Your task to perform on an android device: Search for pizza restaurants on Maps Image 0: 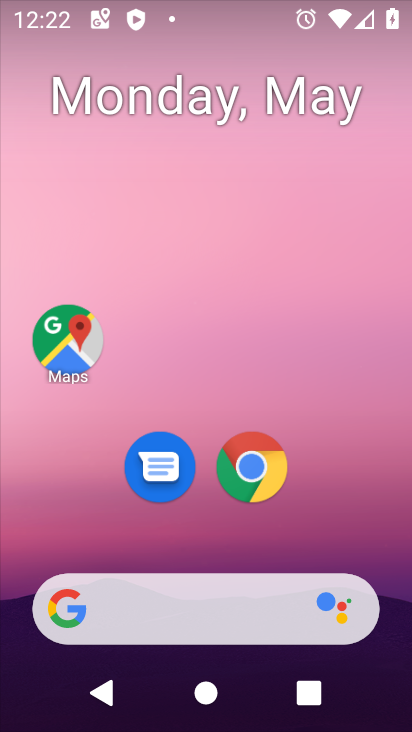
Step 0: drag from (382, 651) to (326, 40)
Your task to perform on an android device: Search for pizza restaurants on Maps Image 1: 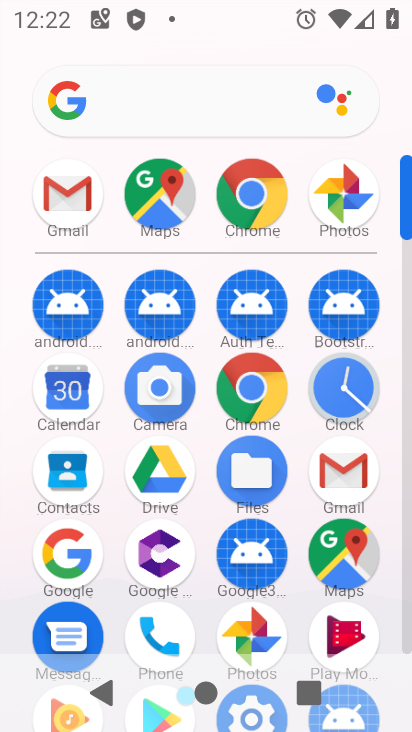
Step 1: click (350, 567)
Your task to perform on an android device: Search for pizza restaurants on Maps Image 2: 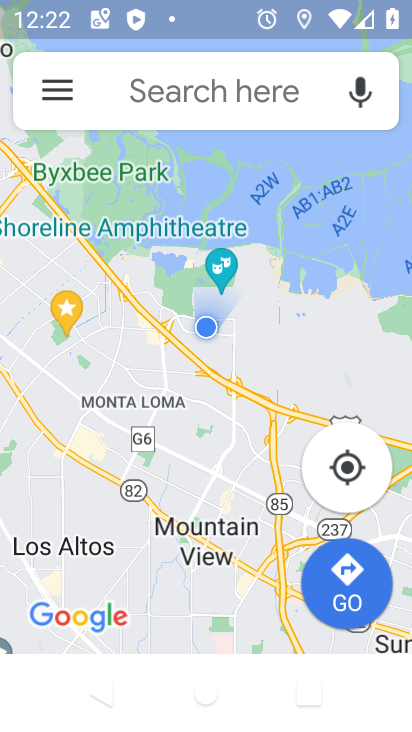
Step 2: click (147, 105)
Your task to perform on an android device: Search for pizza restaurants on Maps Image 3: 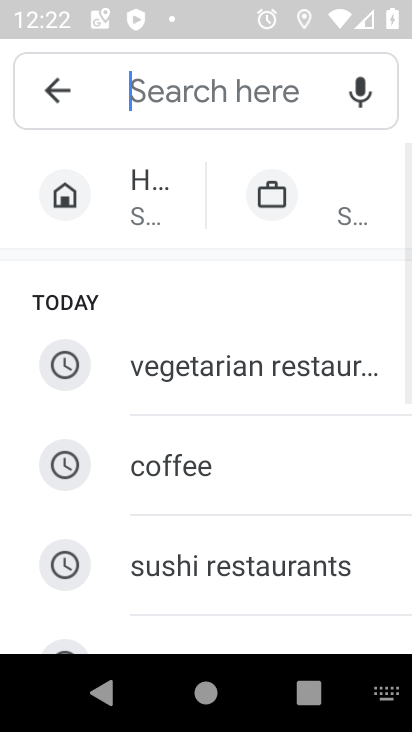
Step 3: drag from (177, 556) to (200, 110)
Your task to perform on an android device: Search for pizza restaurants on Maps Image 4: 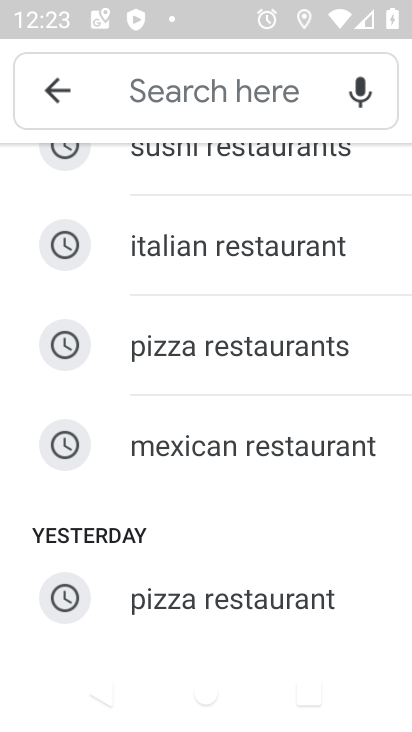
Step 4: click (231, 358)
Your task to perform on an android device: Search for pizza restaurants on Maps Image 5: 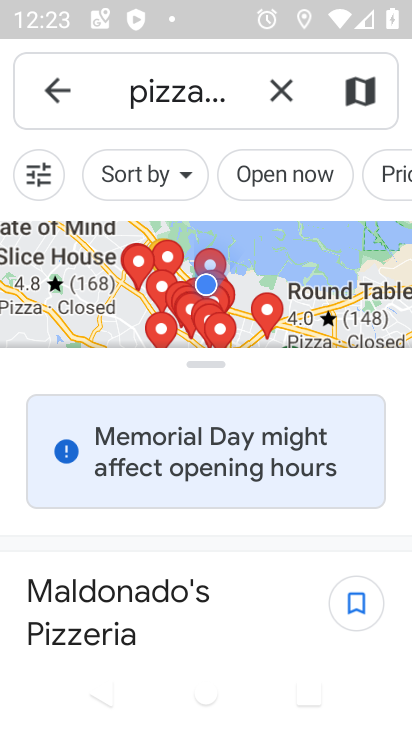
Step 5: task complete